Your task to perform on an android device: allow cookies in the chrome app Image 0: 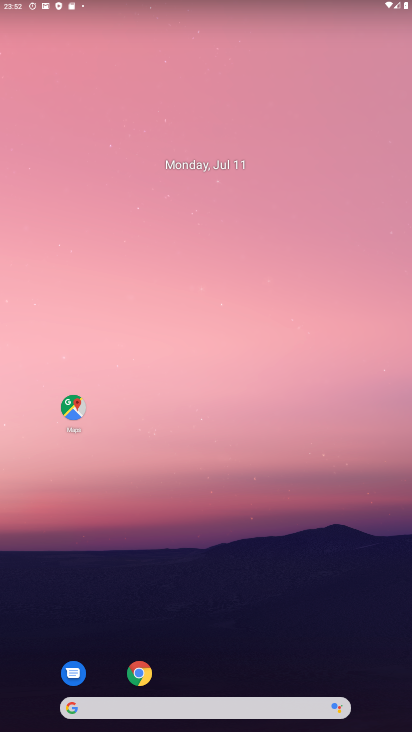
Step 0: press home button
Your task to perform on an android device: allow cookies in the chrome app Image 1: 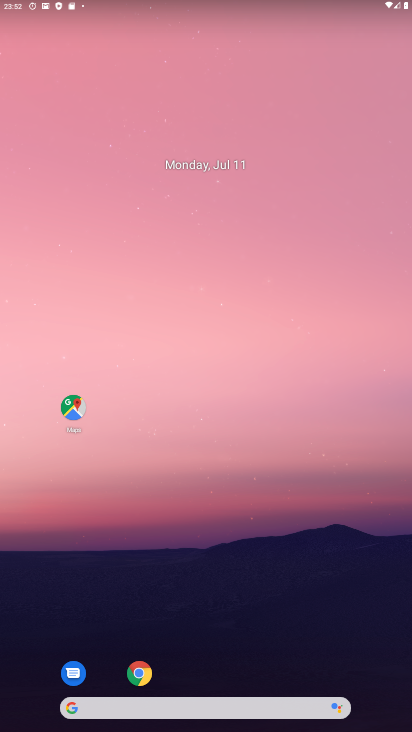
Step 1: drag from (240, 459) to (278, 42)
Your task to perform on an android device: allow cookies in the chrome app Image 2: 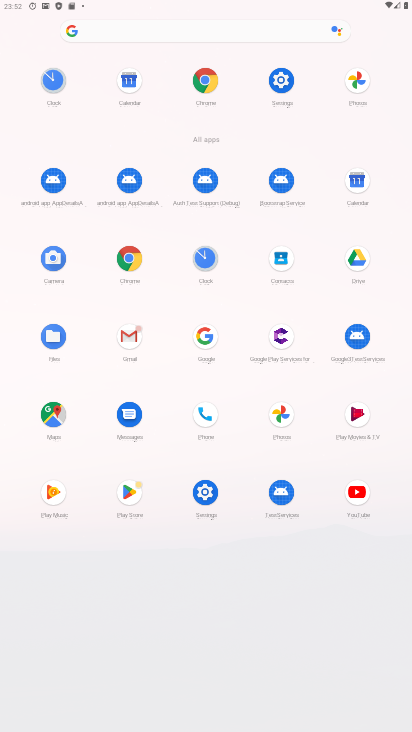
Step 2: click (128, 258)
Your task to perform on an android device: allow cookies in the chrome app Image 3: 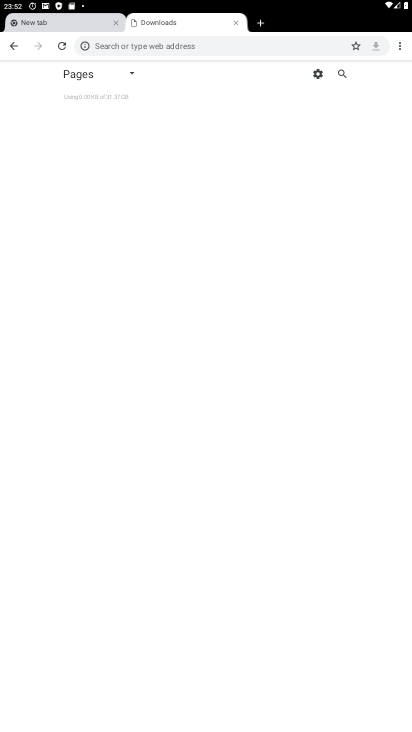
Step 3: drag from (399, 44) to (305, 209)
Your task to perform on an android device: allow cookies in the chrome app Image 4: 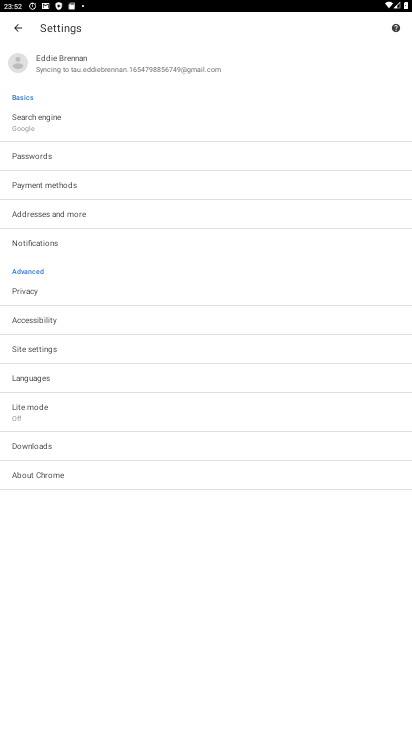
Step 4: click (36, 346)
Your task to perform on an android device: allow cookies in the chrome app Image 5: 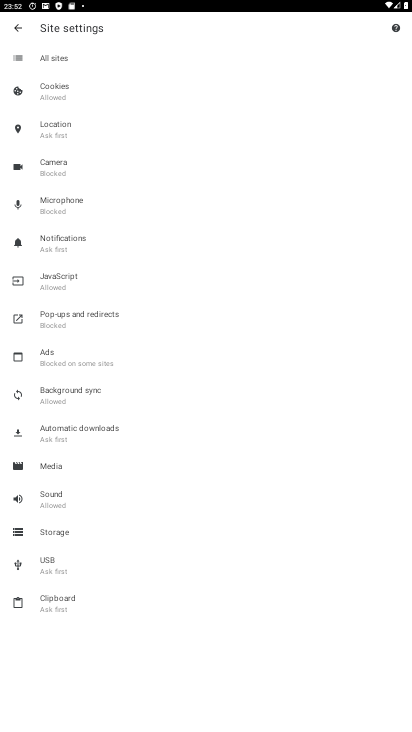
Step 5: click (59, 89)
Your task to perform on an android device: allow cookies in the chrome app Image 6: 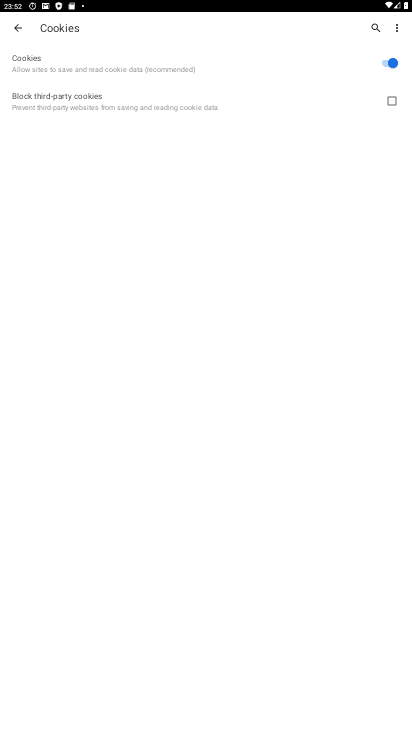
Step 6: task complete